Your task to perform on an android device: What's the weather today? Image 0: 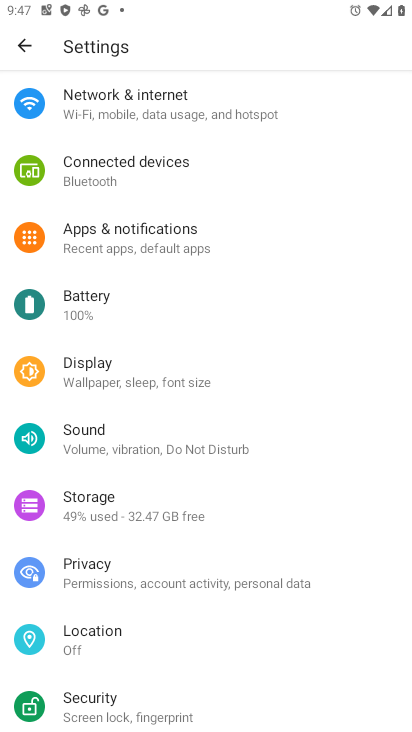
Step 0: press home button
Your task to perform on an android device: What's the weather today? Image 1: 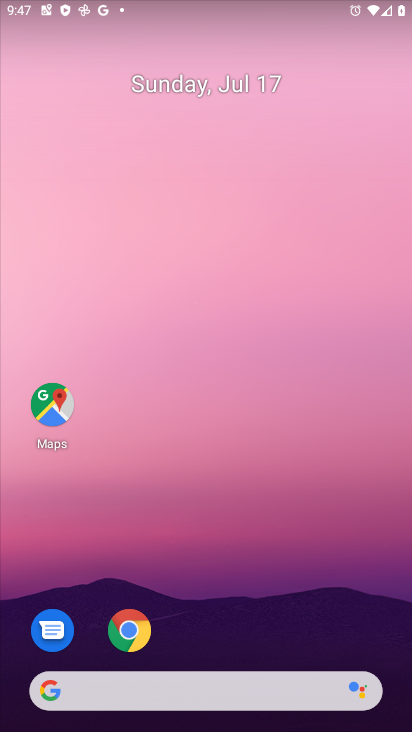
Step 1: click (132, 682)
Your task to perform on an android device: What's the weather today? Image 2: 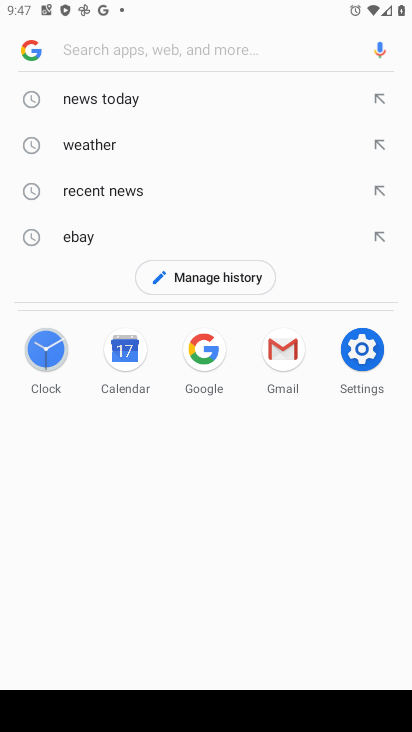
Step 2: click (87, 144)
Your task to perform on an android device: What's the weather today? Image 3: 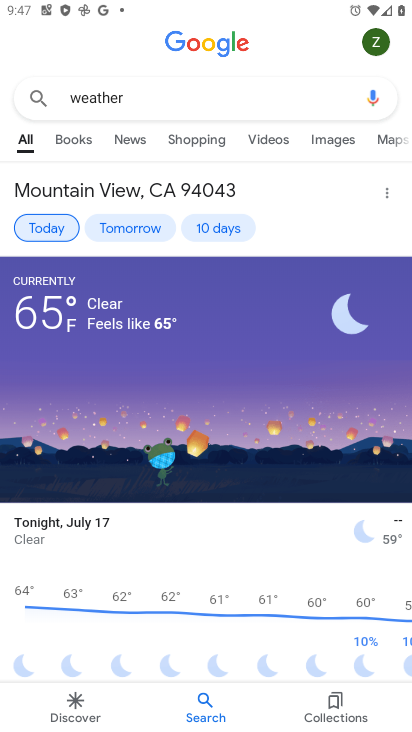
Step 3: task complete